Your task to perform on an android device: Open settings on Google Maps Image 0: 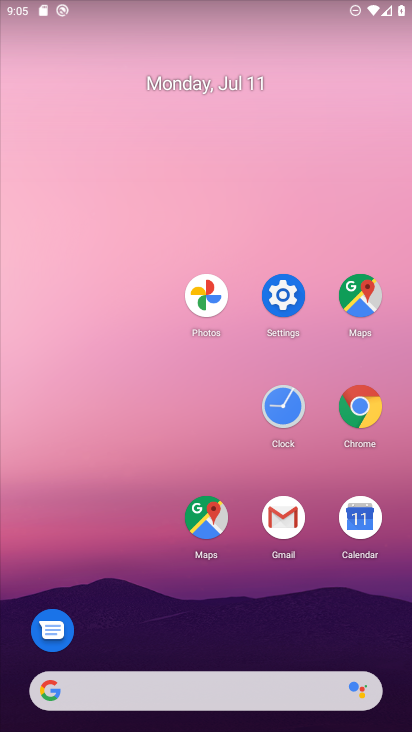
Step 0: click (208, 522)
Your task to perform on an android device: Open settings on Google Maps Image 1: 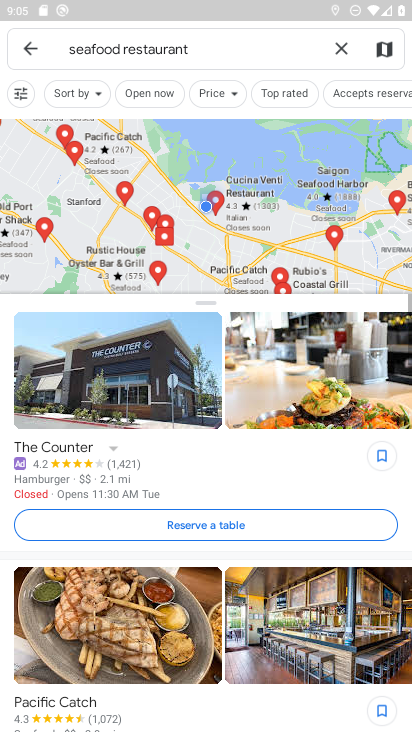
Step 1: click (37, 53)
Your task to perform on an android device: Open settings on Google Maps Image 2: 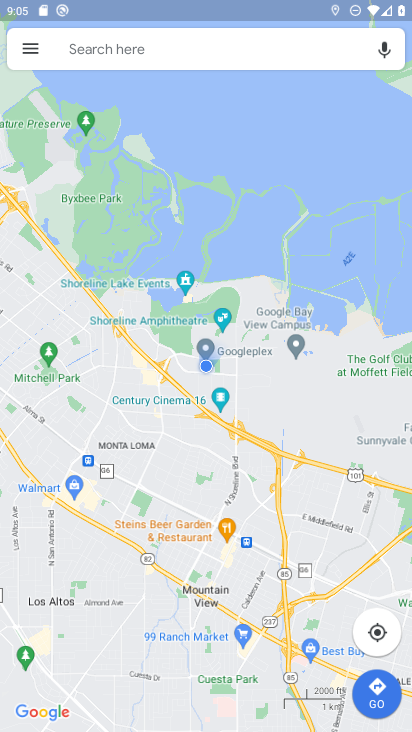
Step 2: click (37, 53)
Your task to perform on an android device: Open settings on Google Maps Image 3: 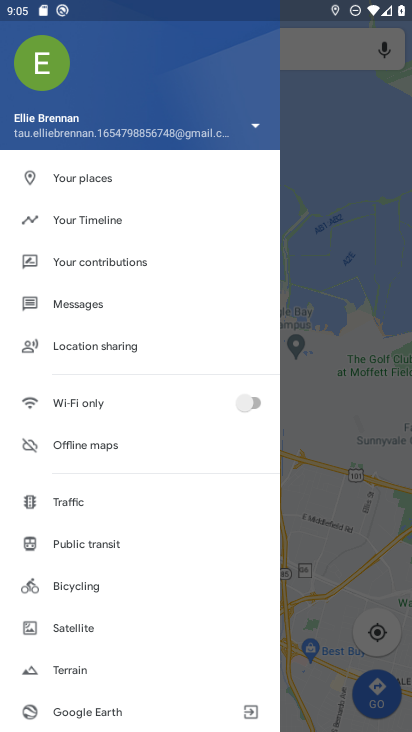
Step 3: drag from (112, 673) to (168, 276)
Your task to perform on an android device: Open settings on Google Maps Image 4: 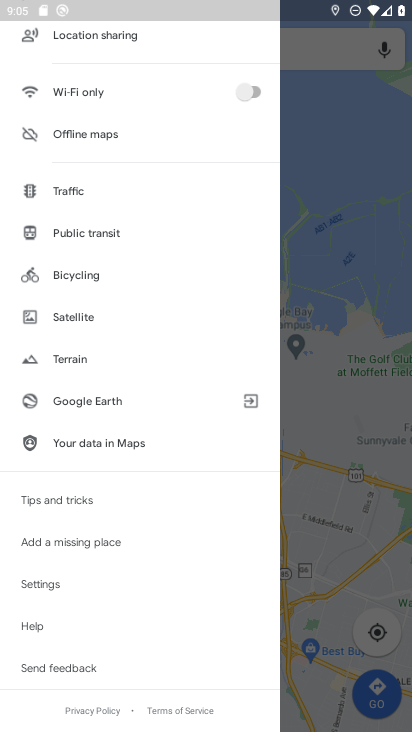
Step 4: click (54, 581)
Your task to perform on an android device: Open settings on Google Maps Image 5: 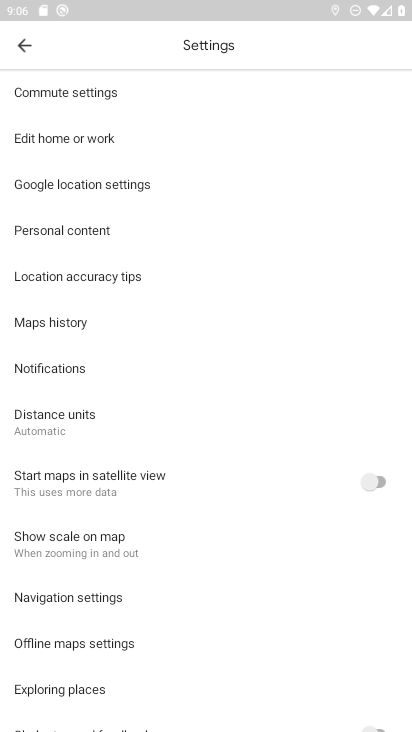
Step 5: task complete